Your task to perform on an android device: Open calendar and show me the third week of next month Image 0: 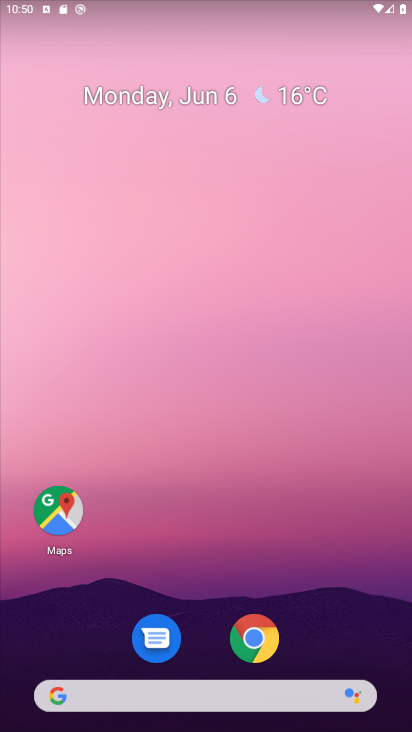
Step 0: drag from (212, 685) to (257, 179)
Your task to perform on an android device: Open calendar and show me the third week of next month Image 1: 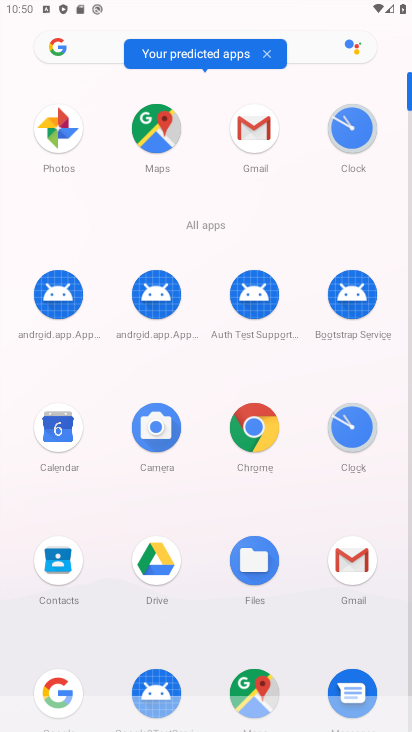
Step 1: click (57, 430)
Your task to perform on an android device: Open calendar and show me the third week of next month Image 2: 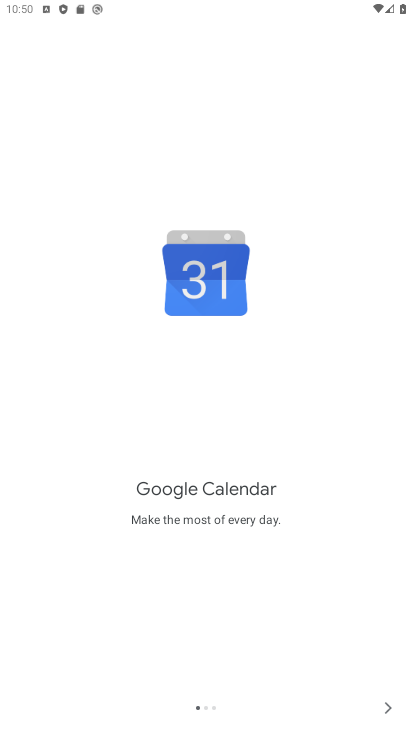
Step 2: click (387, 698)
Your task to perform on an android device: Open calendar and show me the third week of next month Image 3: 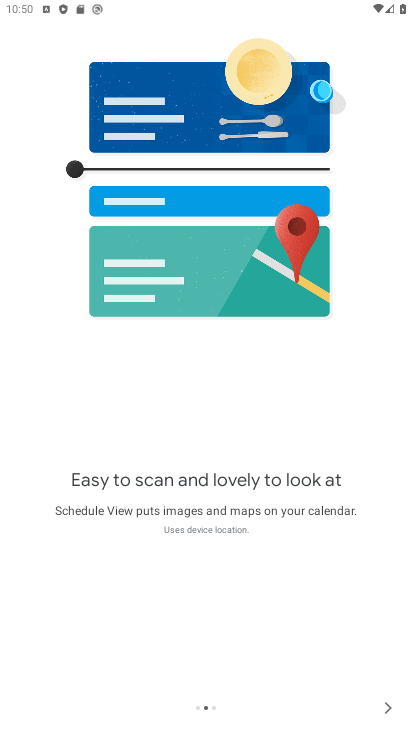
Step 3: click (372, 703)
Your task to perform on an android device: Open calendar and show me the third week of next month Image 4: 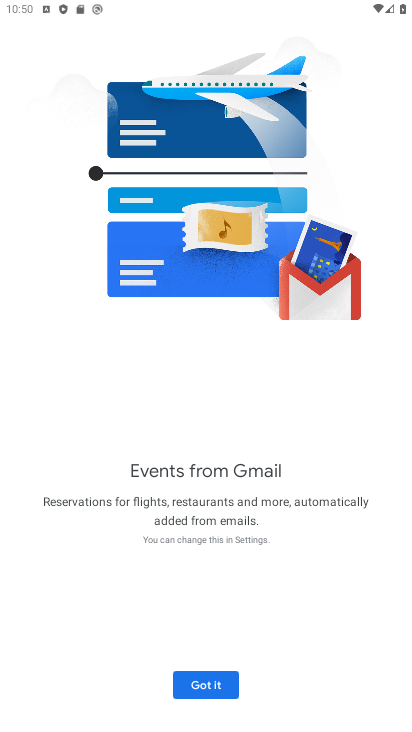
Step 4: click (212, 687)
Your task to perform on an android device: Open calendar and show me the third week of next month Image 5: 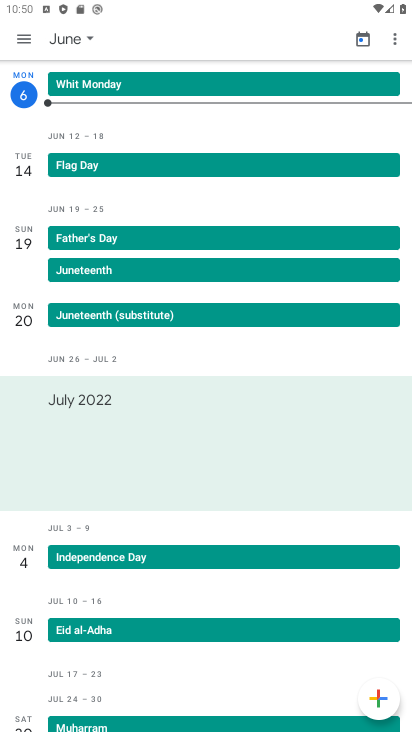
Step 5: click (16, 43)
Your task to perform on an android device: Open calendar and show me the third week of next month Image 6: 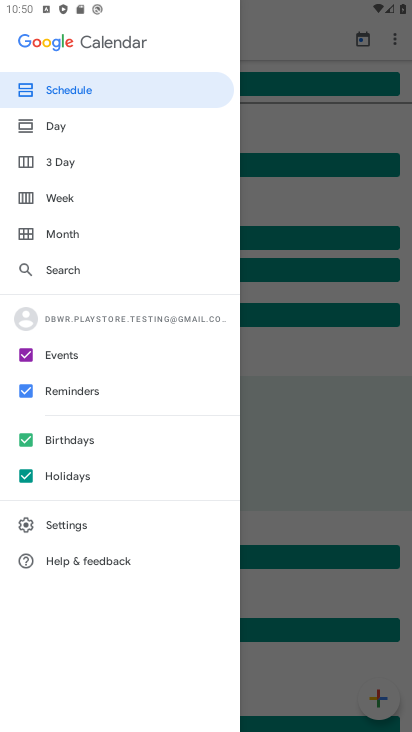
Step 6: click (61, 245)
Your task to perform on an android device: Open calendar and show me the third week of next month Image 7: 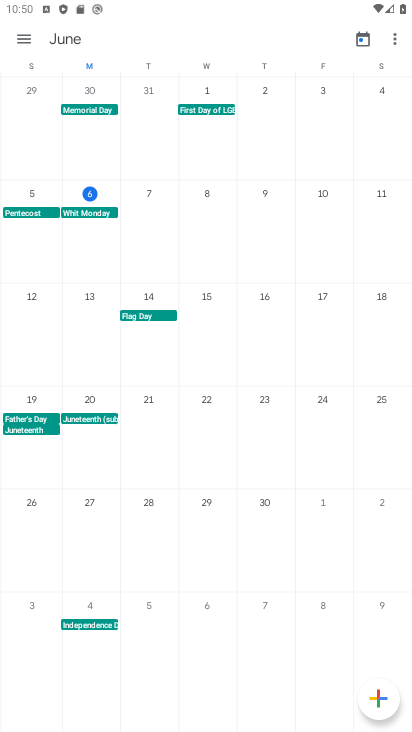
Step 7: click (90, 416)
Your task to perform on an android device: Open calendar and show me the third week of next month Image 8: 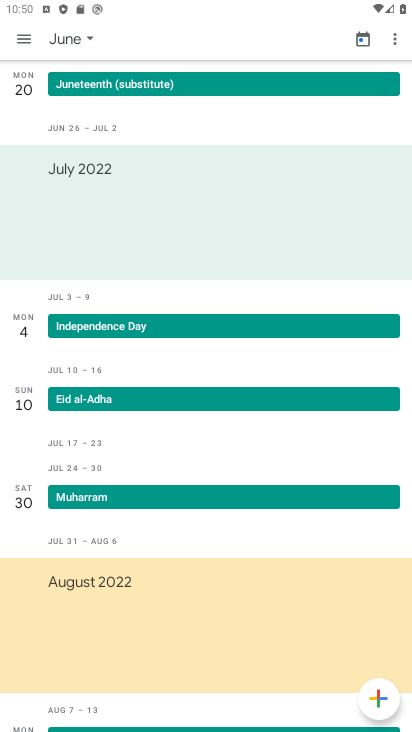
Step 8: task complete